Your task to perform on an android device: What is the recent news? Image 0: 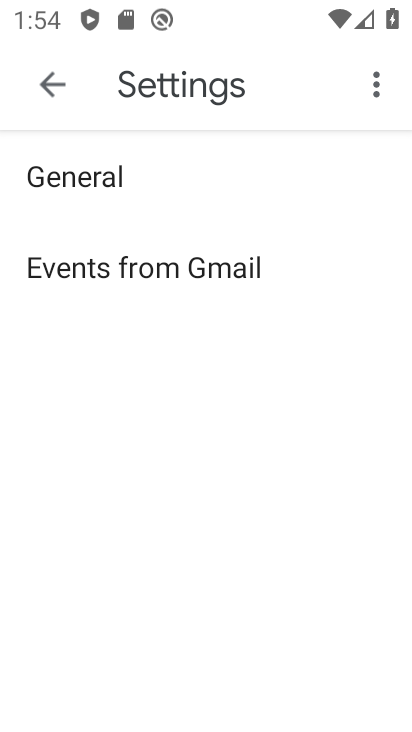
Step 0: press home button
Your task to perform on an android device: What is the recent news? Image 1: 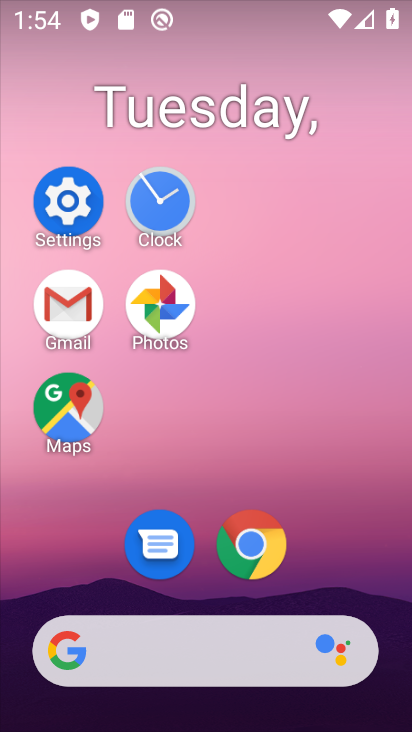
Step 1: drag from (346, 544) to (318, 120)
Your task to perform on an android device: What is the recent news? Image 2: 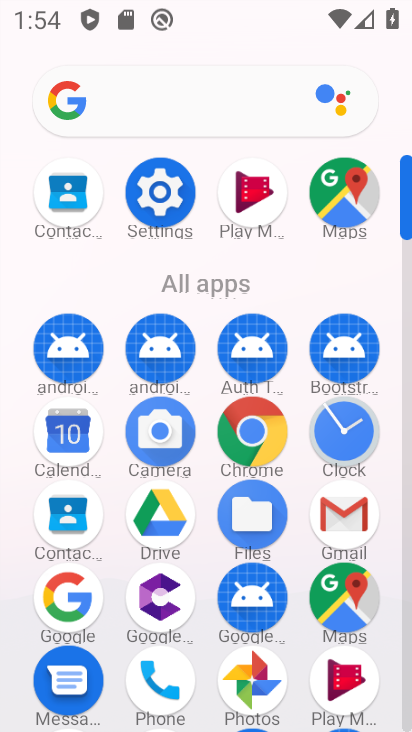
Step 2: drag from (66, 605) to (226, 311)
Your task to perform on an android device: What is the recent news? Image 3: 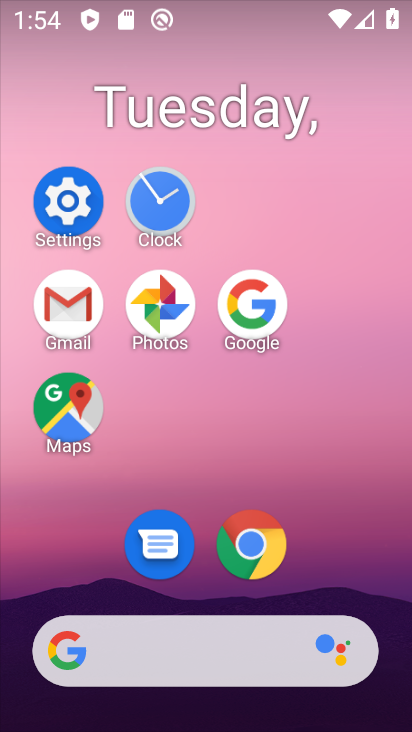
Step 3: click (247, 312)
Your task to perform on an android device: What is the recent news? Image 4: 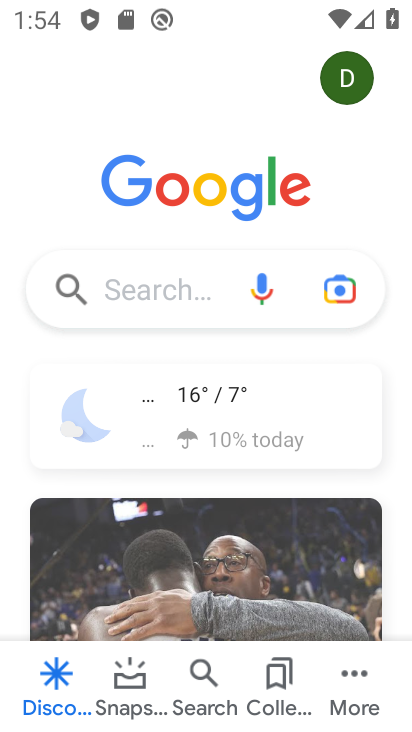
Step 4: click (196, 295)
Your task to perform on an android device: What is the recent news? Image 5: 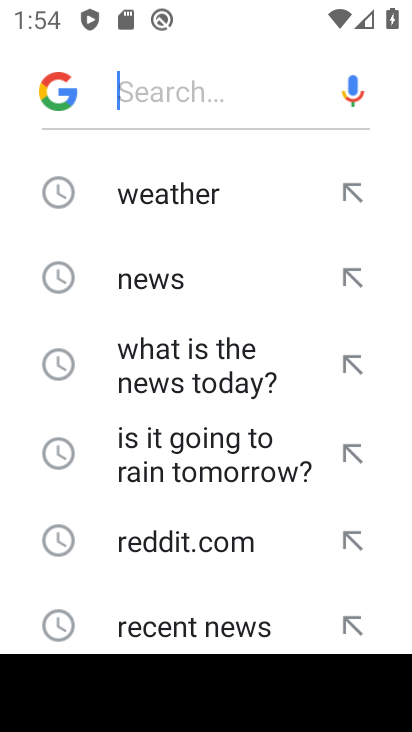
Step 5: click (222, 614)
Your task to perform on an android device: What is the recent news? Image 6: 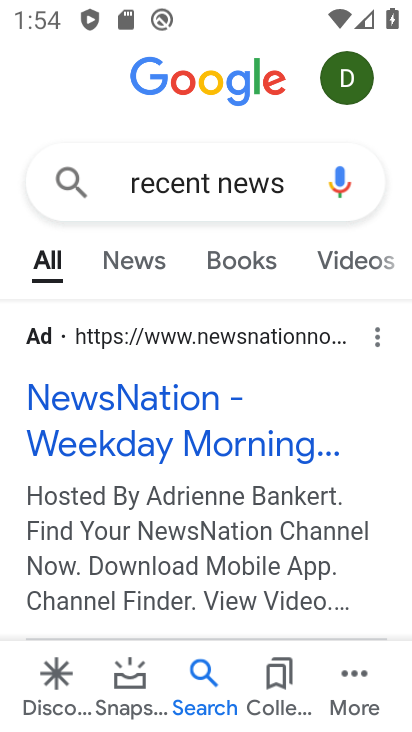
Step 6: task complete